Your task to perform on an android device: Go to Android settings Image 0: 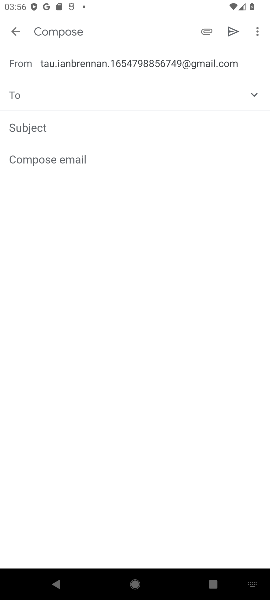
Step 0: press home button
Your task to perform on an android device: Go to Android settings Image 1: 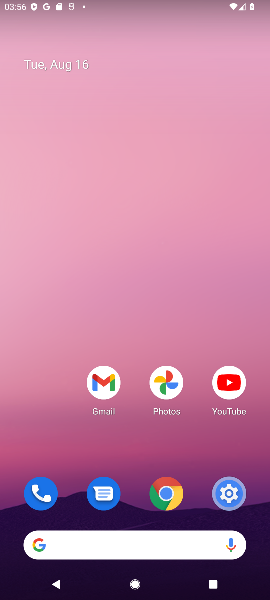
Step 1: drag from (64, 469) to (90, 123)
Your task to perform on an android device: Go to Android settings Image 2: 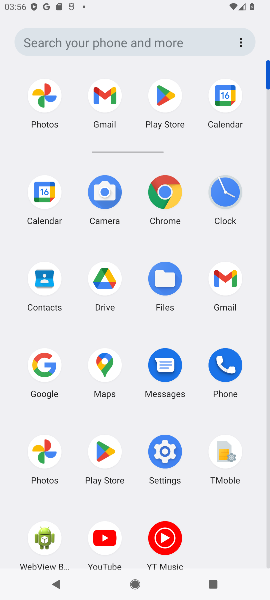
Step 2: click (164, 457)
Your task to perform on an android device: Go to Android settings Image 3: 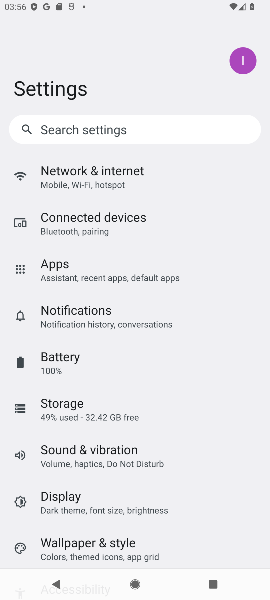
Step 3: drag from (211, 447) to (222, 307)
Your task to perform on an android device: Go to Android settings Image 4: 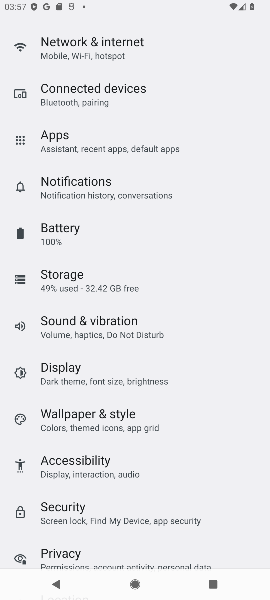
Step 4: drag from (207, 462) to (232, 297)
Your task to perform on an android device: Go to Android settings Image 5: 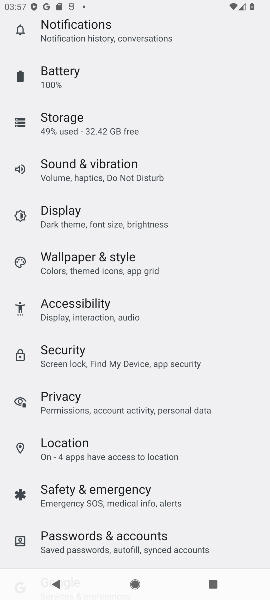
Step 5: drag from (217, 497) to (241, 312)
Your task to perform on an android device: Go to Android settings Image 6: 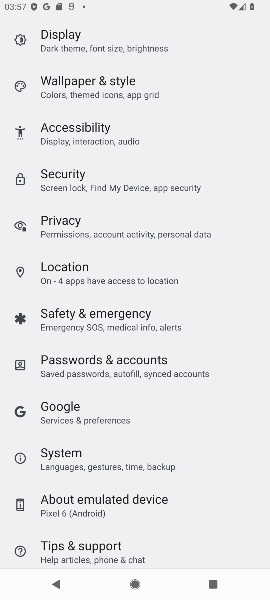
Step 6: drag from (215, 503) to (233, 337)
Your task to perform on an android device: Go to Android settings Image 7: 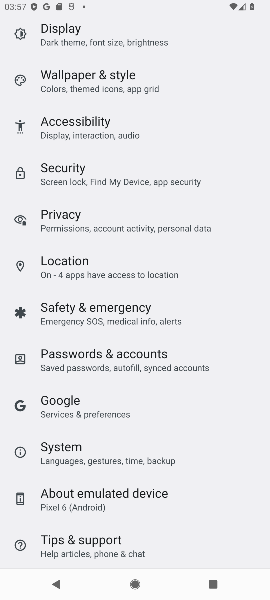
Step 7: click (181, 461)
Your task to perform on an android device: Go to Android settings Image 8: 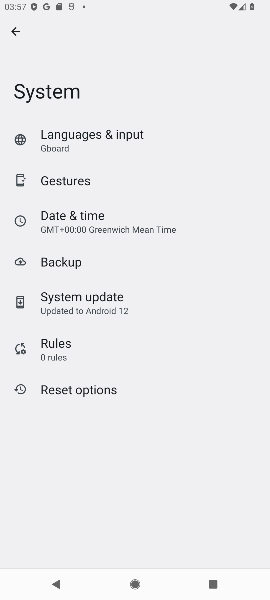
Step 8: task complete